Your task to perform on an android device: turn off data saver in the chrome app Image 0: 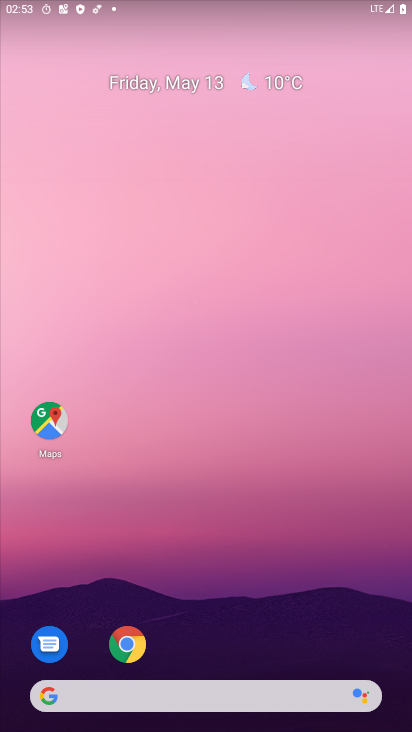
Step 0: drag from (366, 158) to (393, 31)
Your task to perform on an android device: turn off data saver in the chrome app Image 1: 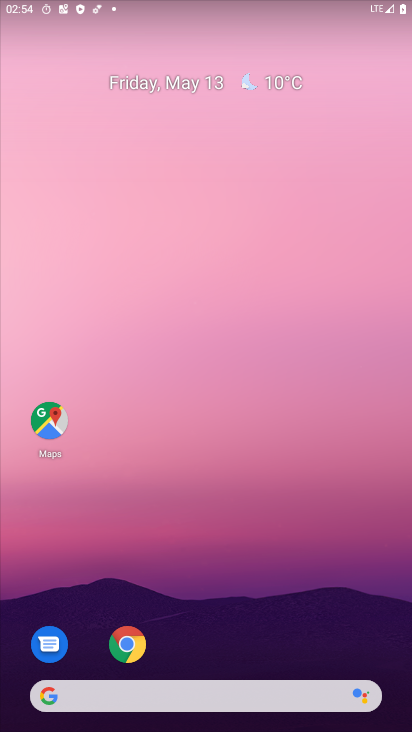
Step 1: drag from (222, 653) to (302, 0)
Your task to perform on an android device: turn off data saver in the chrome app Image 2: 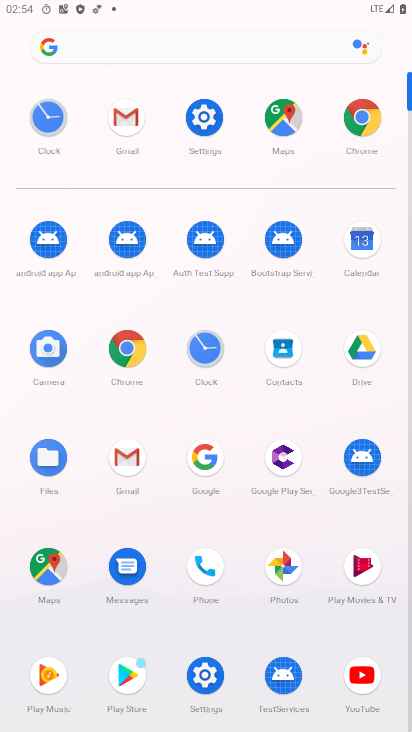
Step 2: click (140, 347)
Your task to perform on an android device: turn off data saver in the chrome app Image 3: 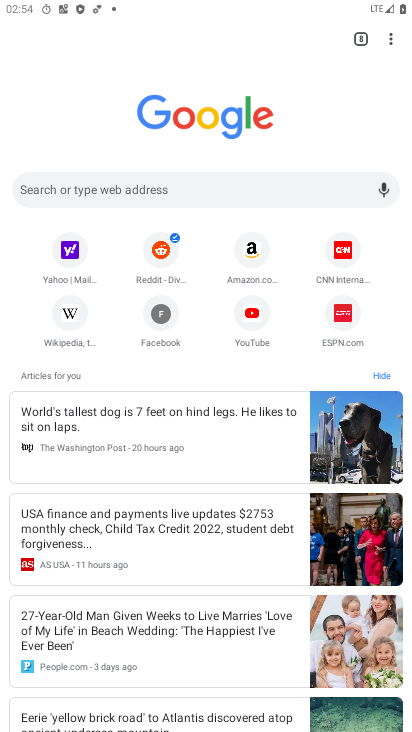
Step 3: drag from (385, 40) to (278, 334)
Your task to perform on an android device: turn off data saver in the chrome app Image 4: 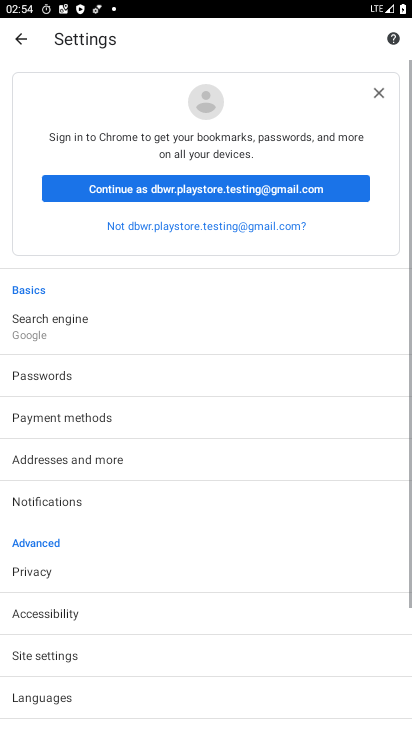
Step 4: drag from (322, 666) to (372, 116)
Your task to perform on an android device: turn off data saver in the chrome app Image 5: 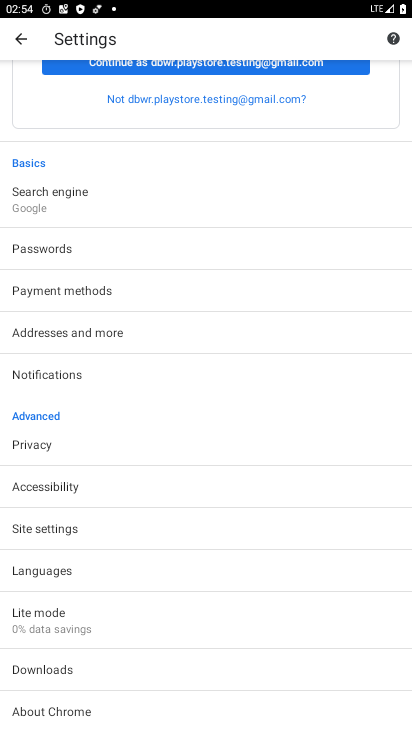
Step 5: click (92, 622)
Your task to perform on an android device: turn off data saver in the chrome app Image 6: 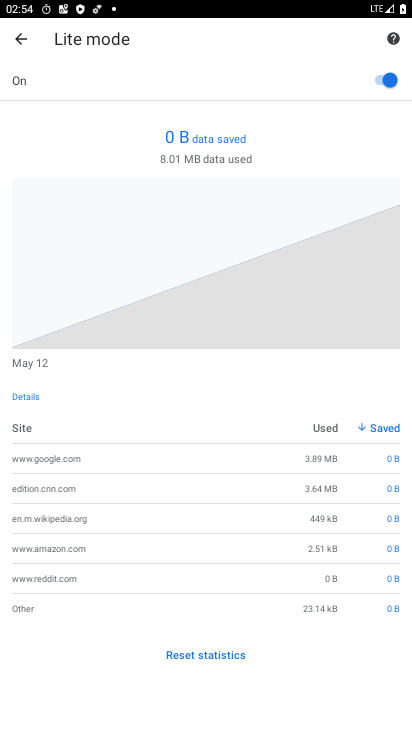
Step 6: click (378, 76)
Your task to perform on an android device: turn off data saver in the chrome app Image 7: 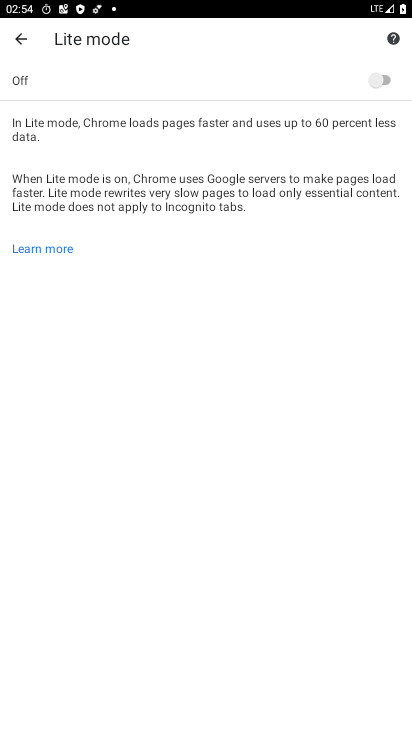
Step 7: task complete